Your task to perform on an android device: delete a single message in the gmail app Image 0: 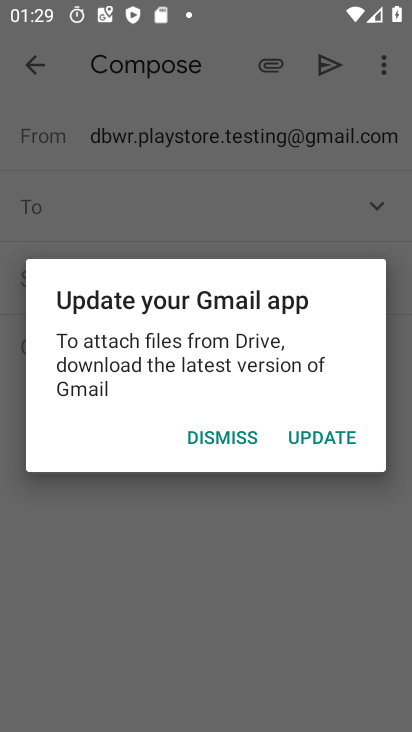
Step 0: press home button
Your task to perform on an android device: delete a single message in the gmail app Image 1: 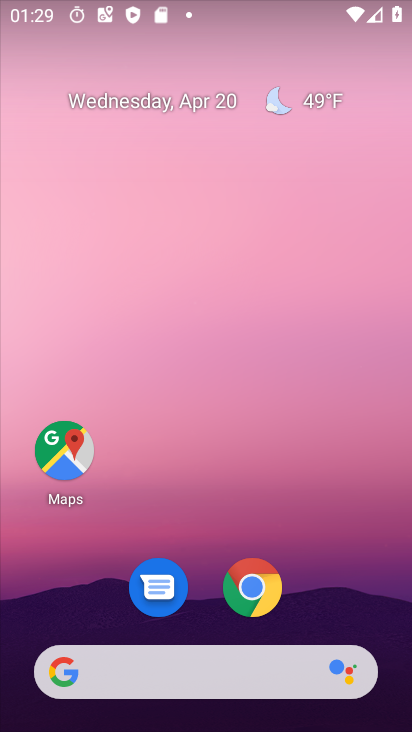
Step 1: drag from (355, 629) to (396, 39)
Your task to perform on an android device: delete a single message in the gmail app Image 2: 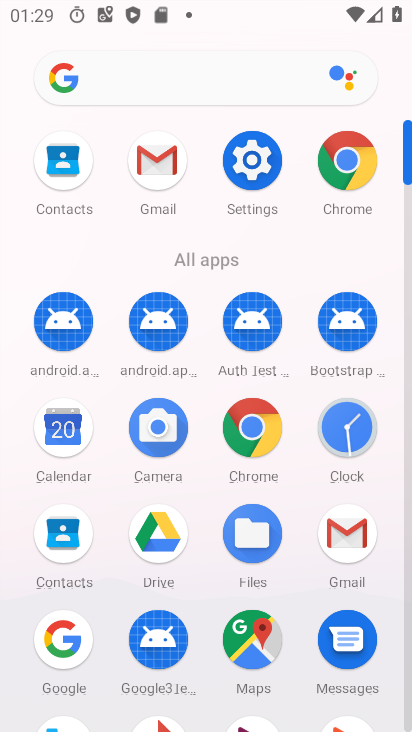
Step 2: click (152, 166)
Your task to perform on an android device: delete a single message in the gmail app Image 3: 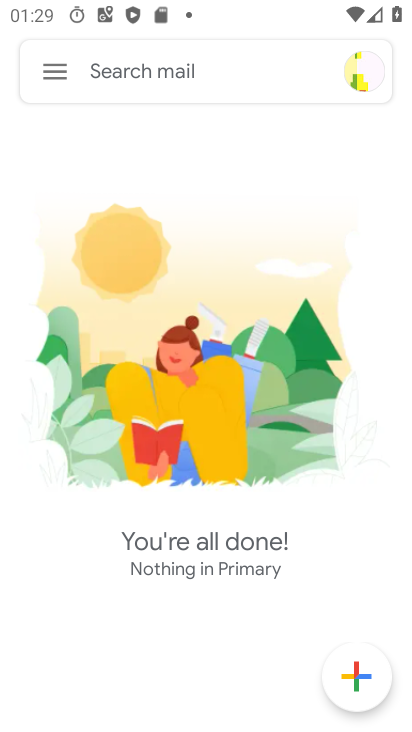
Step 3: click (47, 79)
Your task to perform on an android device: delete a single message in the gmail app Image 4: 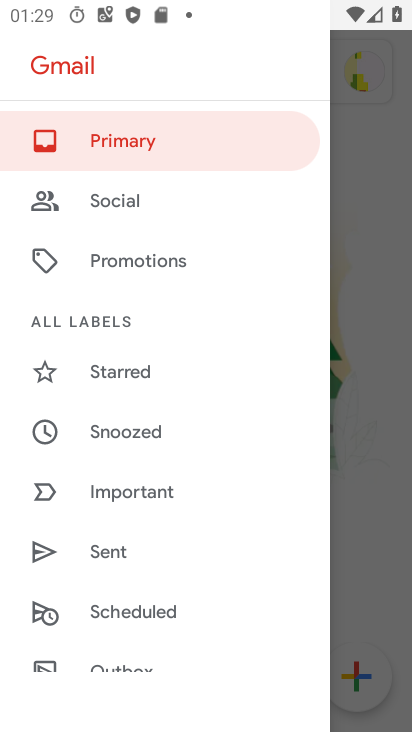
Step 4: drag from (188, 568) to (184, 196)
Your task to perform on an android device: delete a single message in the gmail app Image 5: 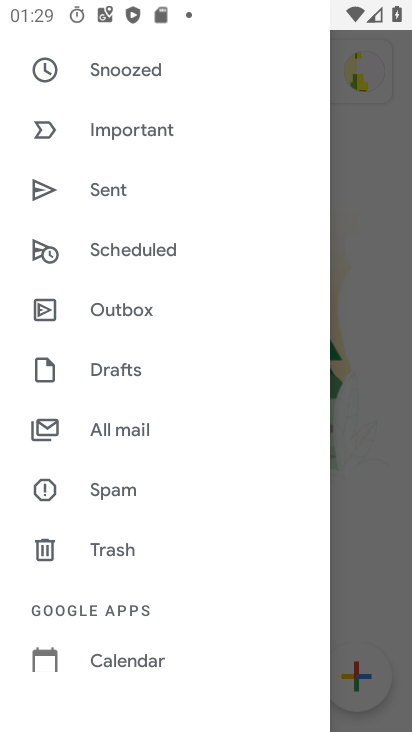
Step 5: click (122, 432)
Your task to perform on an android device: delete a single message in the gmail app Image 6: 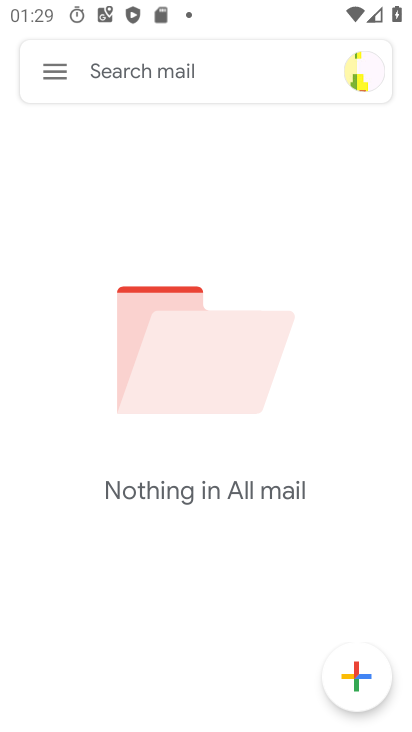
Step 6: task complete